Your task to perform on an android device: Find coffee shops on Maps Image 0: 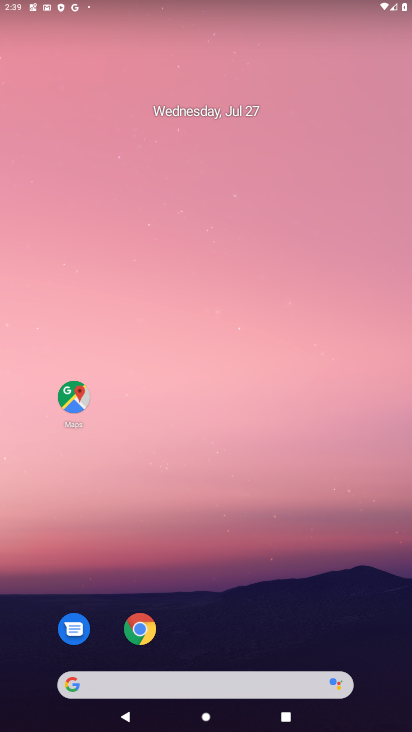
Step 0: task complete